Your task to perform on an android device: change timer sound Image 0: 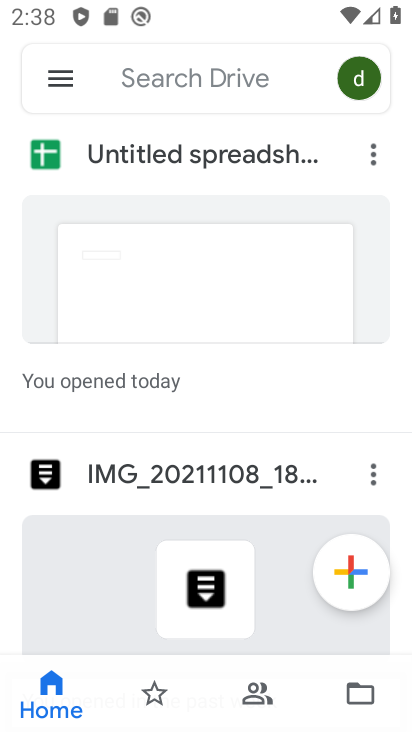
Step 0: press home button
Your task to perform on an android device: change timer sound Image 1: 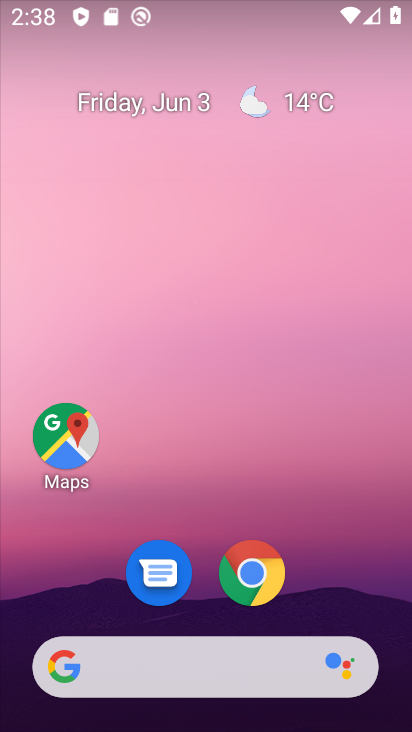
Step 1: drag from (196, 691) to (246, 74)
Your task to perform on an android device: change timer sound Image 2: 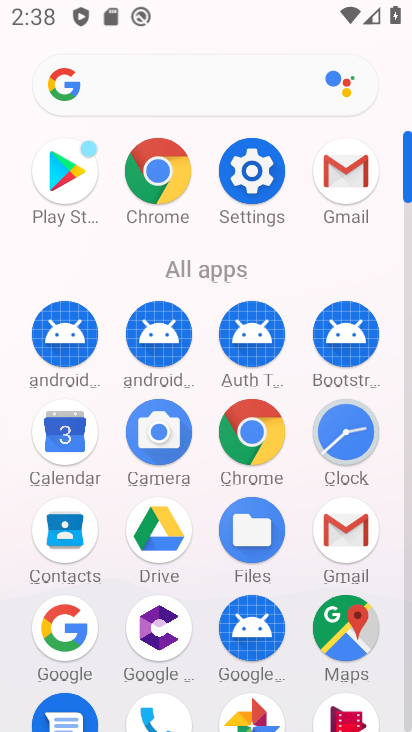
Step 2: click (350, 441)
Your task to perform on an android device: change timer sound Image 3: 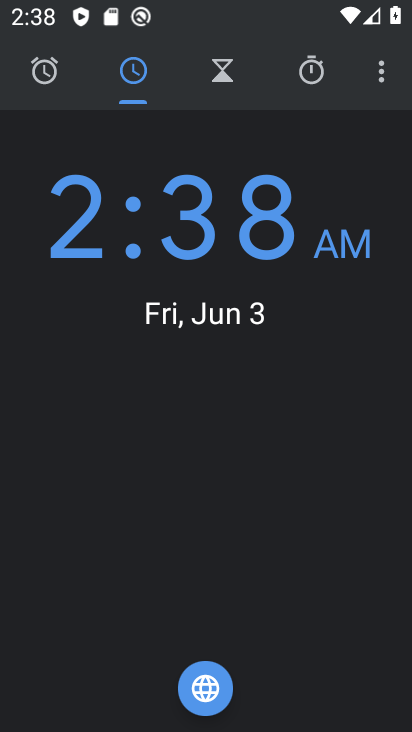
Step 3: click (384, 77)
Your task to perform on an android device: change timer sound Image 4: 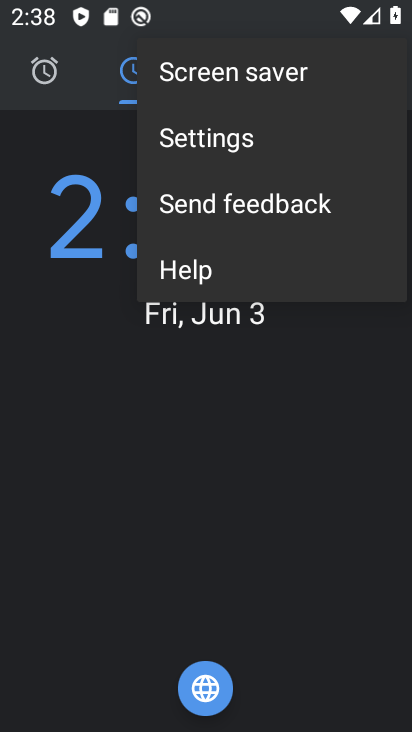
Step 4: click (255, 138)
Your task to perform on an android device: change timer sound Image 5: 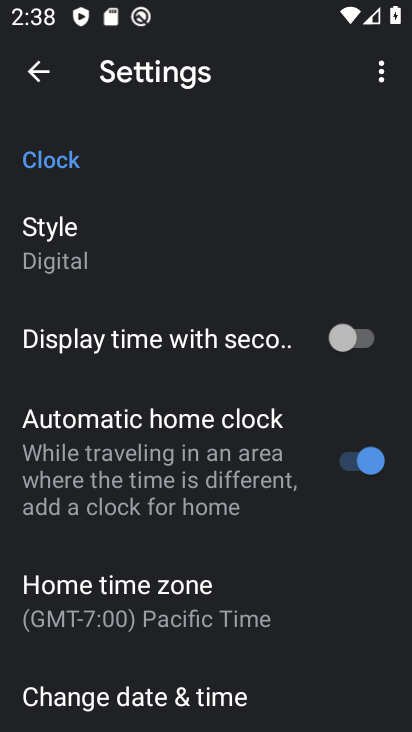
Step 5: drag from (198, 614) to (200, 64)
Your task to perform on an android device: change timer sound Image 6: 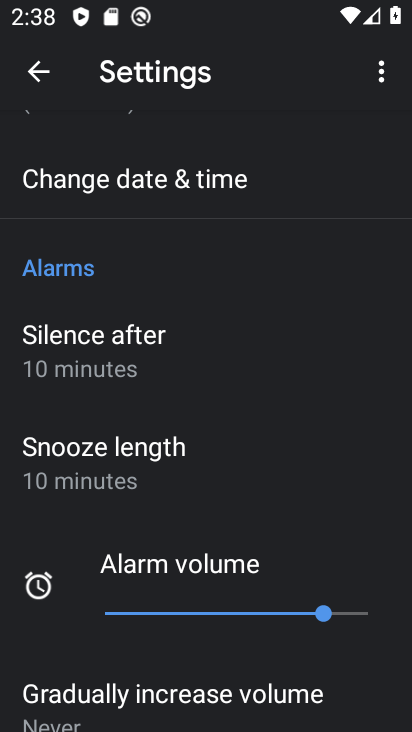
Step 6: drag from (204, 633) to (258, 224)
Your task to perform on an android device: change timer sound Image 7: 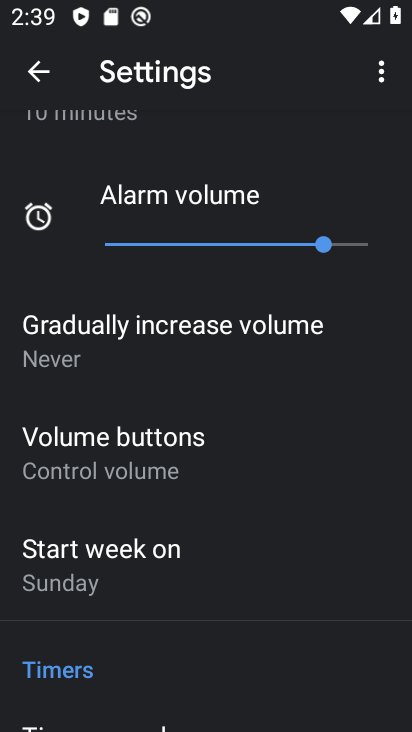
Step 7: drag from (187, 638) to (210, 371)
Your task to perform on an android device: change timer sound Image 8: 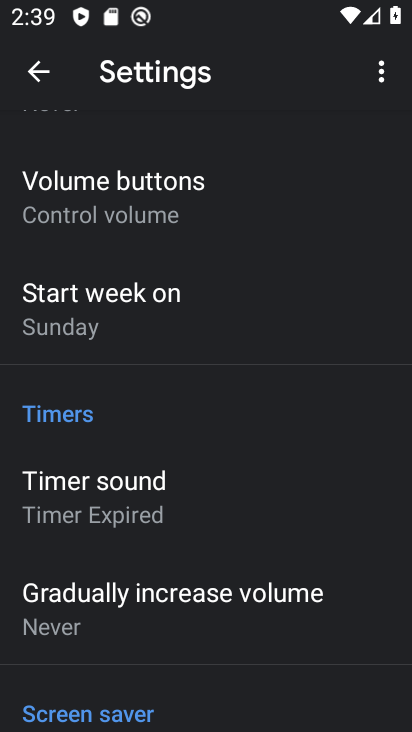
Step 8: click (140, 498)
Your task to perform on an android device: change timer sound Image 9: 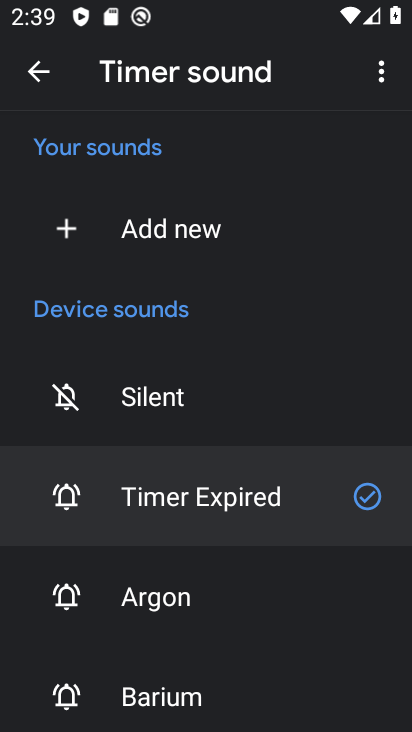
Step 9: click (193, 613)
Your task to perform on an android device: change timer sound Image 10: 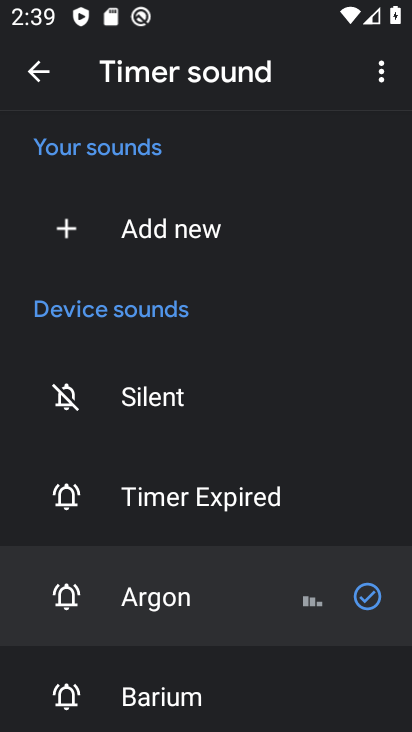
Step 10: task complete